Your task to perform on an android device: Go to sound settings Image 0: 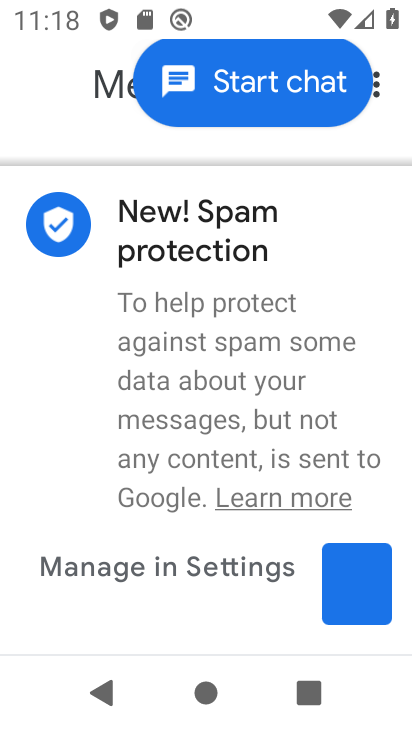
Step 0: press home button
Your task to perform on an android device: Go to sound settings Image 1: 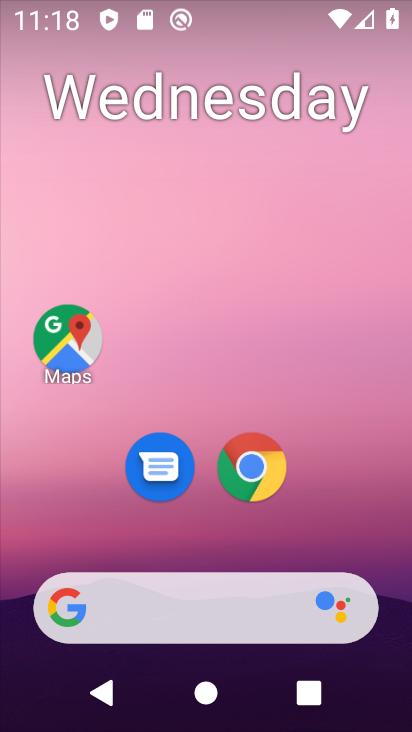
Step 1: drag from (354, 531) to (317, 74)
Your task to perform on an android device: Go to sound settings Image 2: 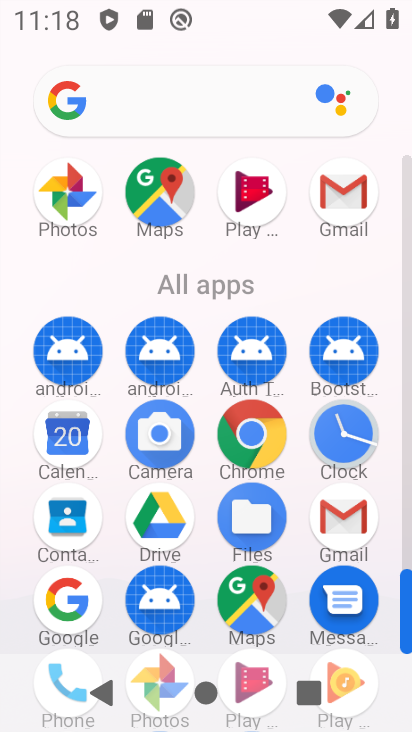
Step 2: drag from (296, 298) to (289, 47)
Your task to perform on an android device: Go to sound settings Image 3: 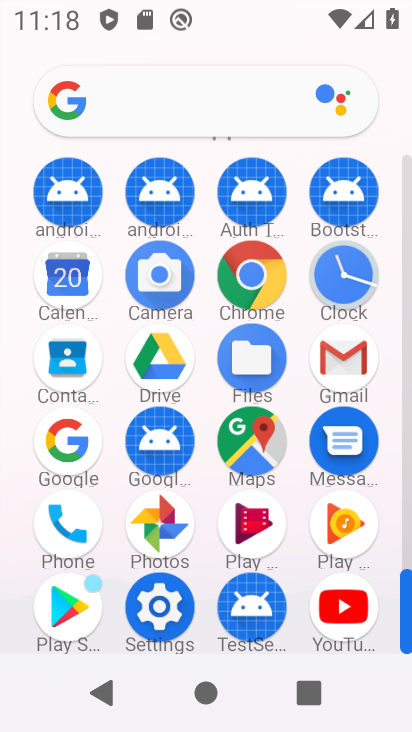
Step 3: click (175, 630)
Your task to perform on an android device: Go to sound settings Image 4: 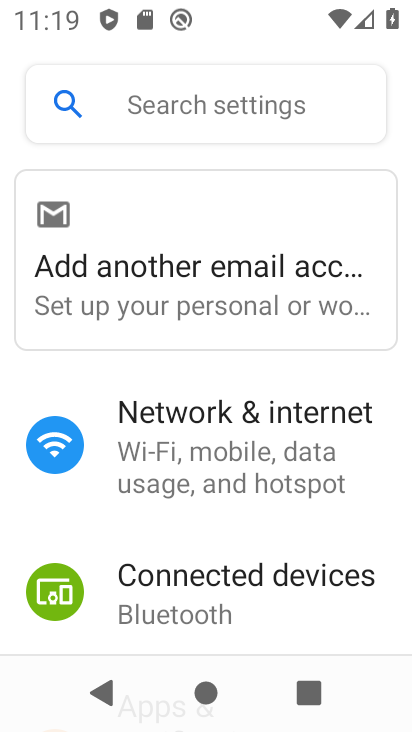
Step 4: drag from (272, 612) to (249, 185)
Your task to perform on an android device: Go to sound settings Image 5: 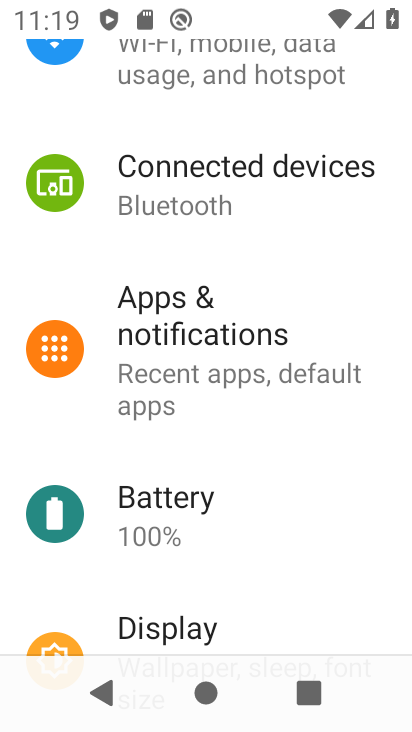
Step 5: drag from (268, 647) to (260, 283)
Your task to perform on an android device: Go to sound settings Image 6: 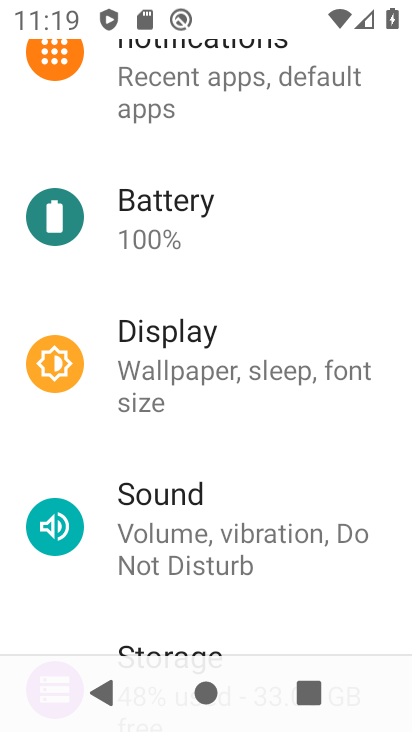
Step 6: click (248, 528)
Your task to perform on an android device: Go to sound settings Image 7: 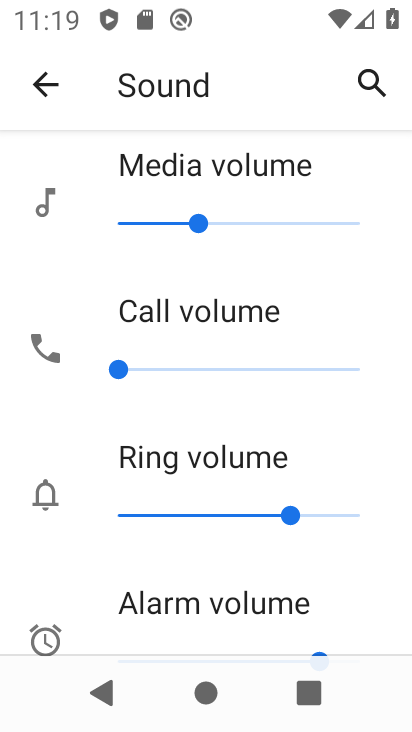
Step 7: task complete